Your task to perform on an android device: Go to accessibility settings Image 0: 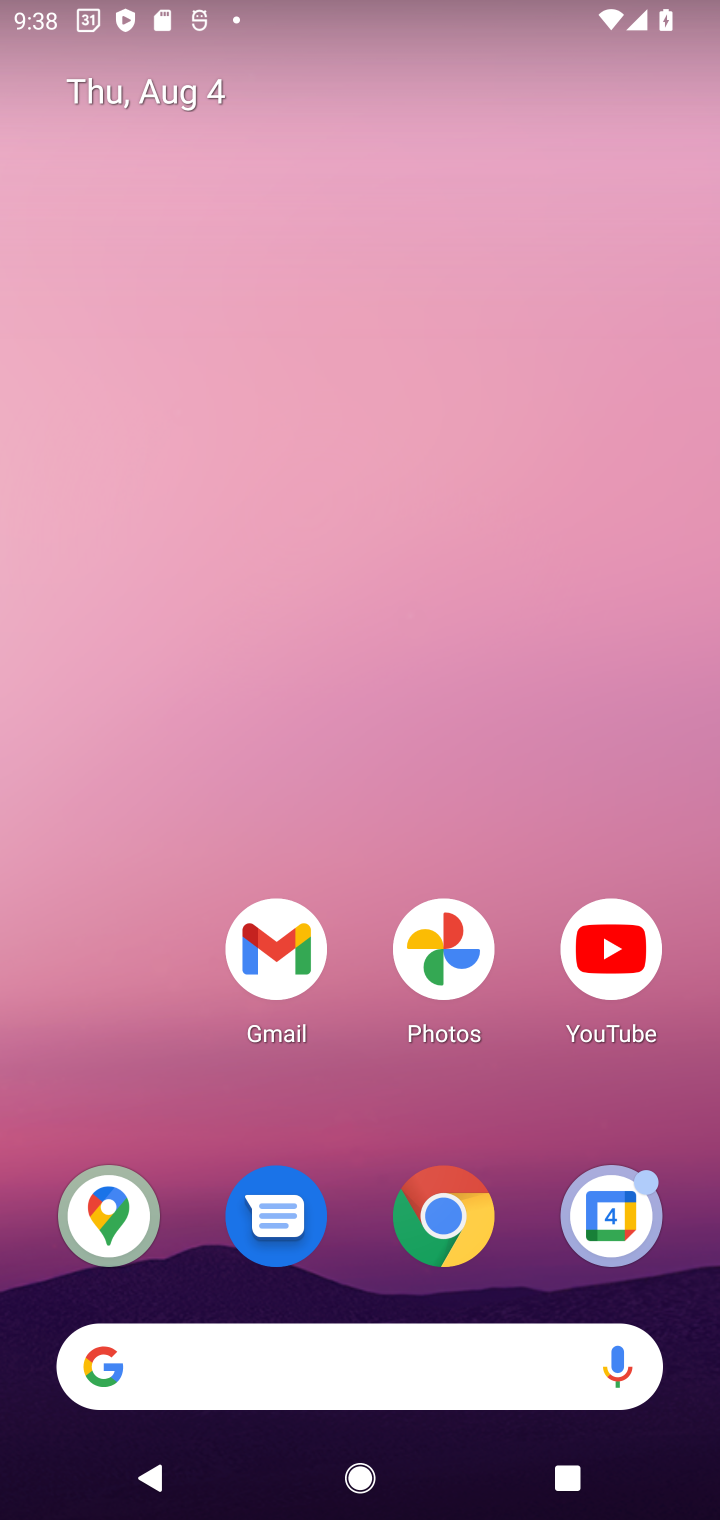
Step 0: drag from (276, 1323) to (440, 178)
Your task to perform on an android device: Go to accessibility settings Image 1: 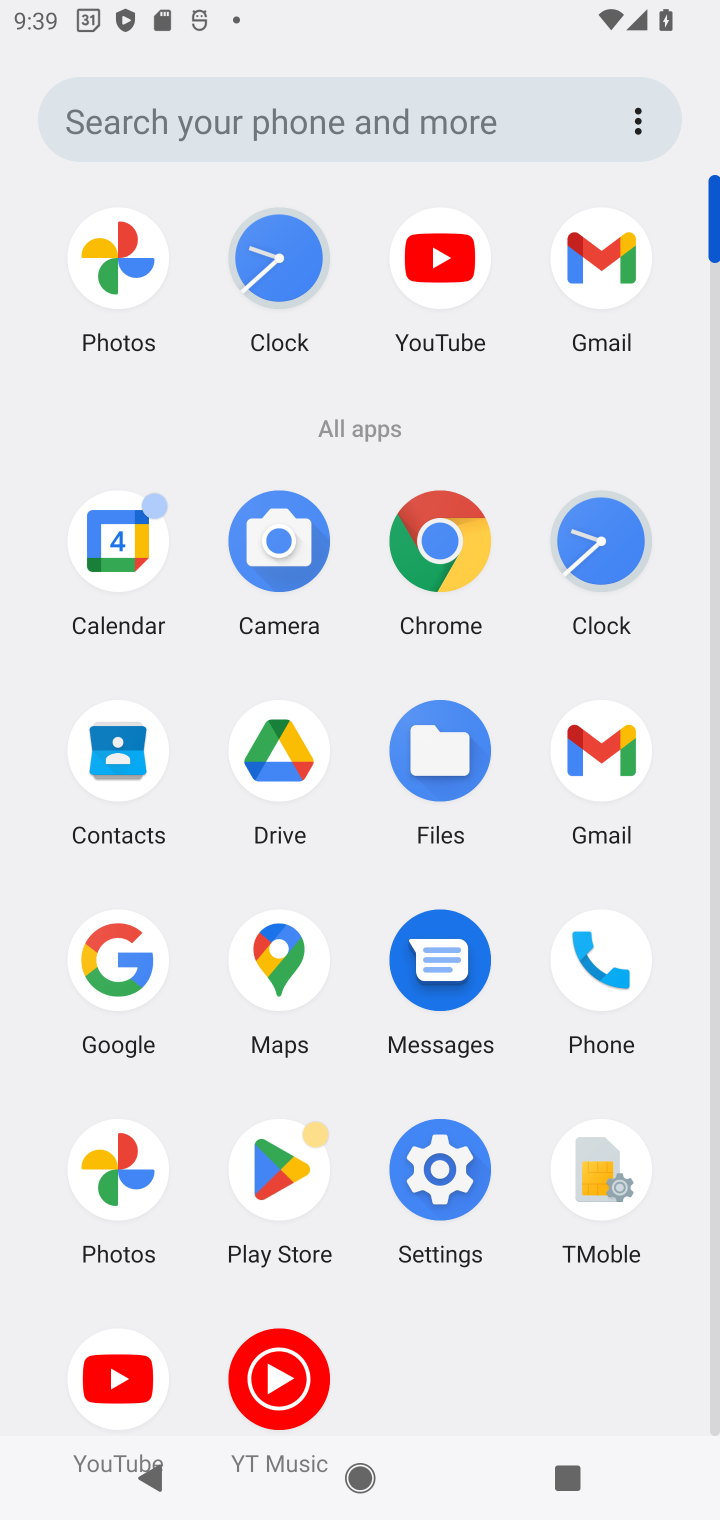
Step 1: click (446, 1169)
Your task to perform on an android device: Go to accessibility settings Image 2: 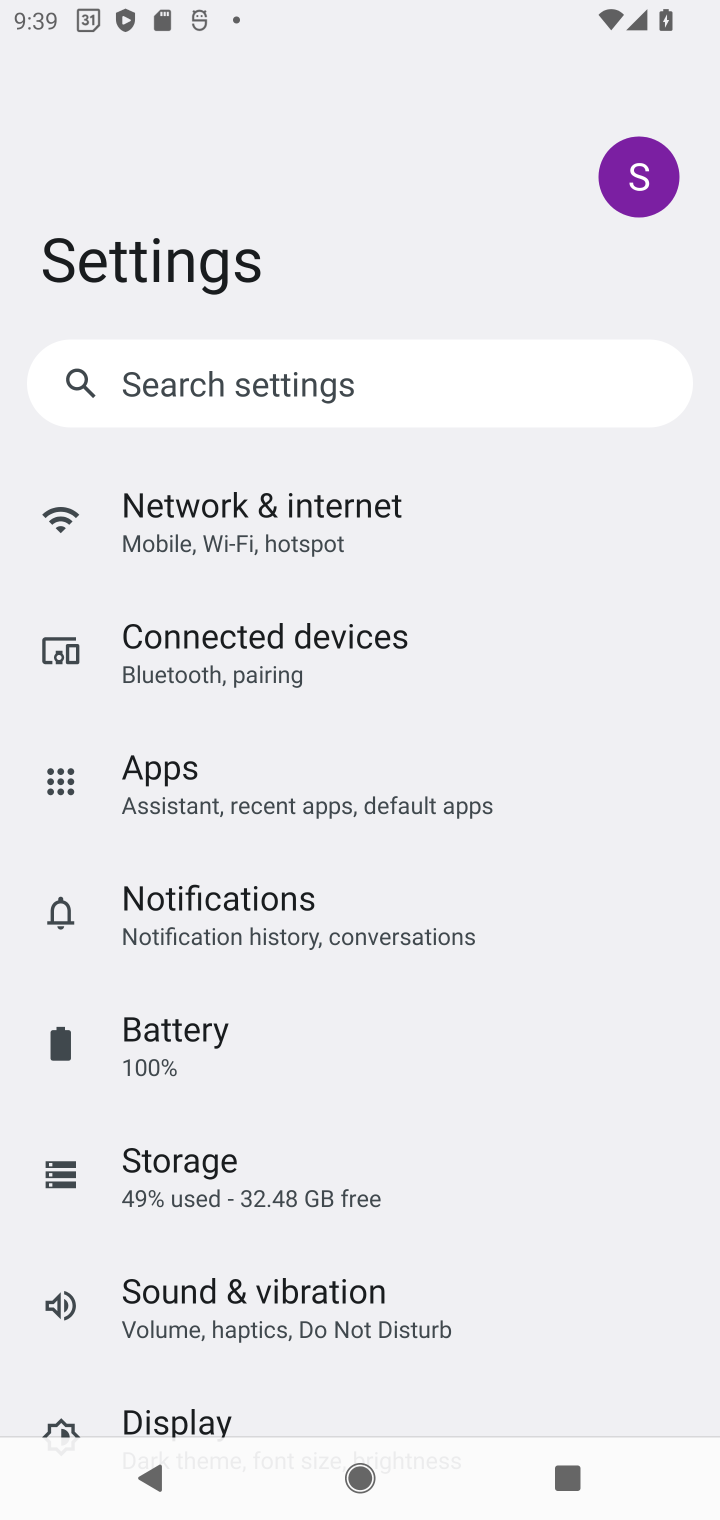
Step 2: drag from (258, 1122) to (352, 895)
Your task to perform on an android device: Go to accessibility settings Image 3: 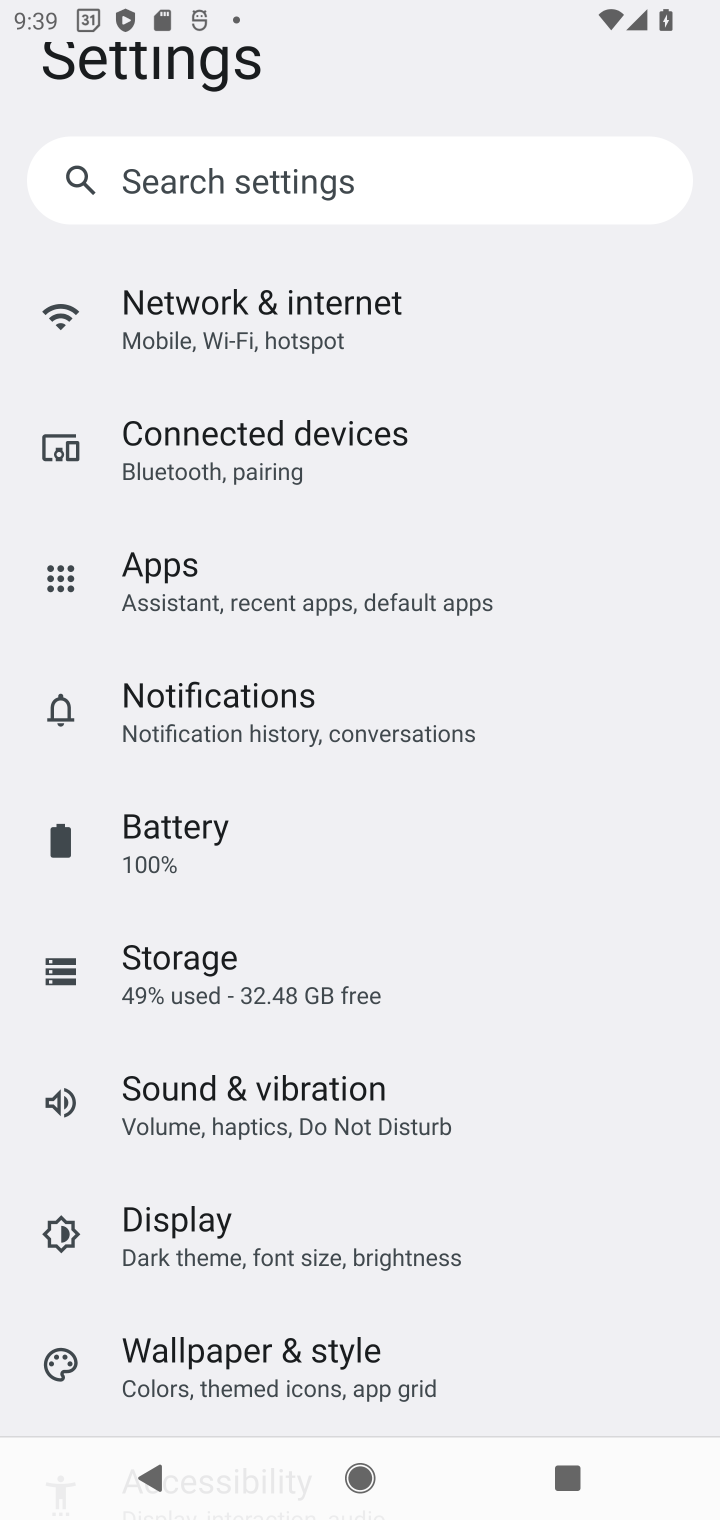
Step 3: drag from (268, 1292) to (326, 1100)
Your task to perform on an android device: Go to accessibility settings Image 4: 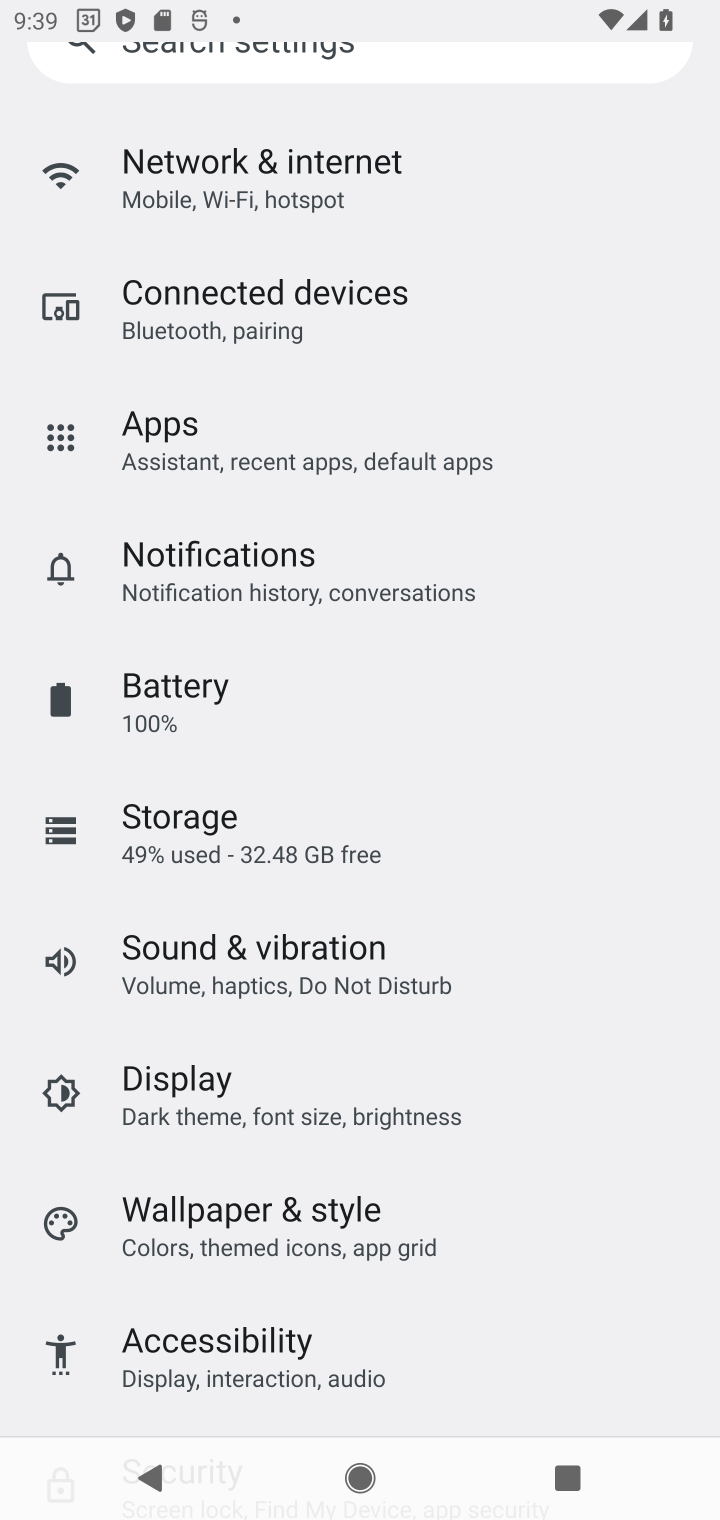
Step 4: click (206, 1347)
Your task to perform on an android device: Go to accessibility settings Image 5: 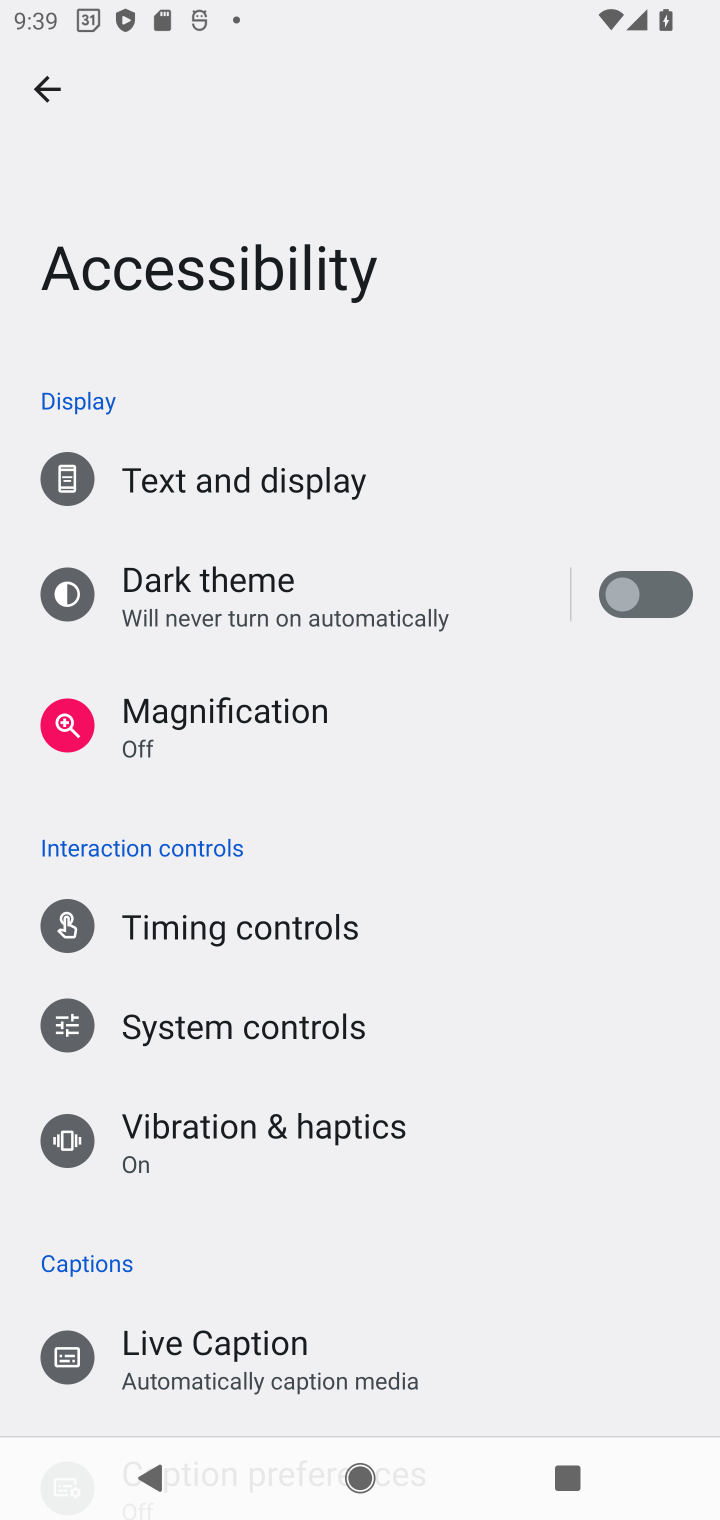
Step 5: task complete